Your task to perform on an android device: change the clock display to analog Image 0: 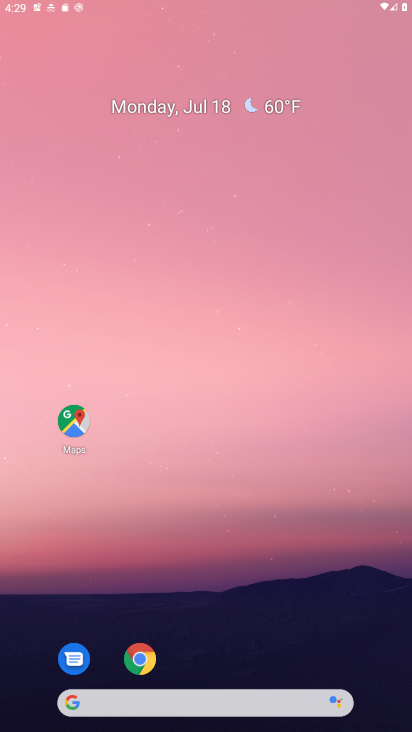
Step 0: click (300, 55)
Your task to perform on an android device: change the clock display to analog Image 1: 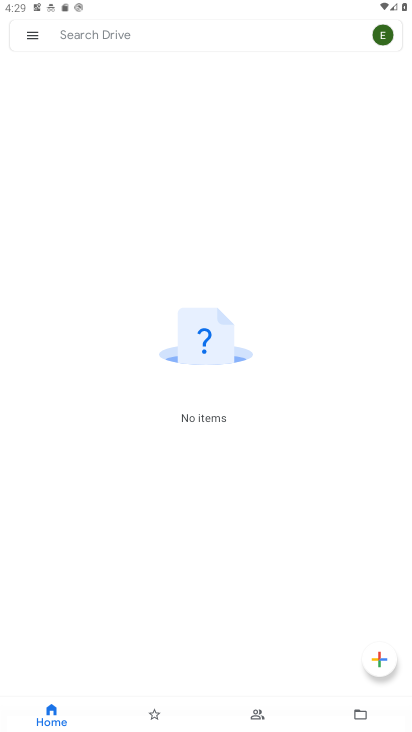
Step 1: press home button
Your task to perform on an android device: change the clock display to analog Image 2: 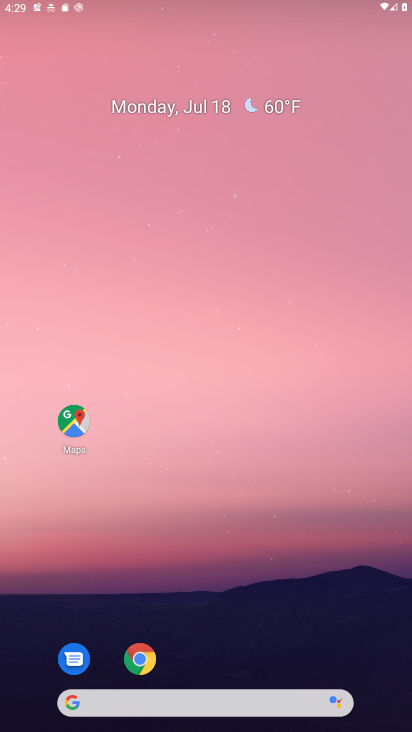
Step 2: drag from (237, 684) to (337, 6)
Your task to perform on an android device: change the clock display to analog Image 3: 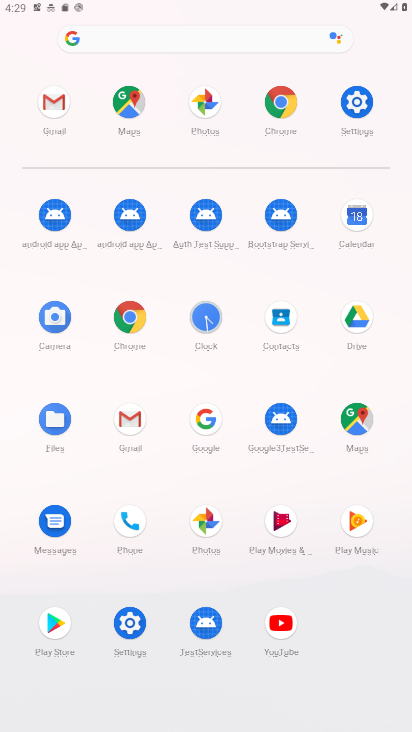
Step 3: click (198, 321)
Your task to perform on an android device: change the clock display to analog Image 4: 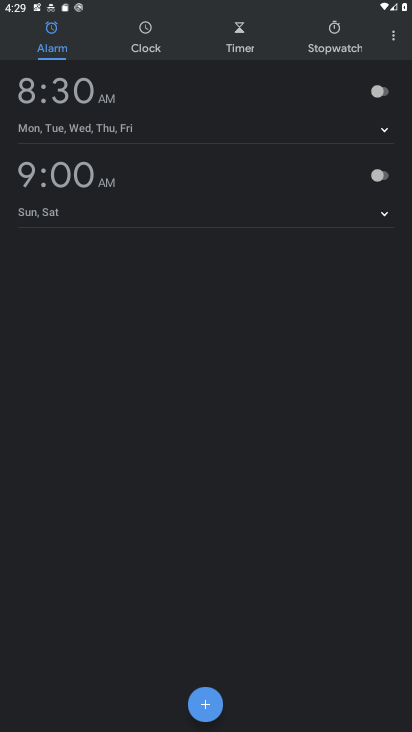
Step 4: click (390, 38)
Your task to perform on an android device: change the clock display to analog Image 5: 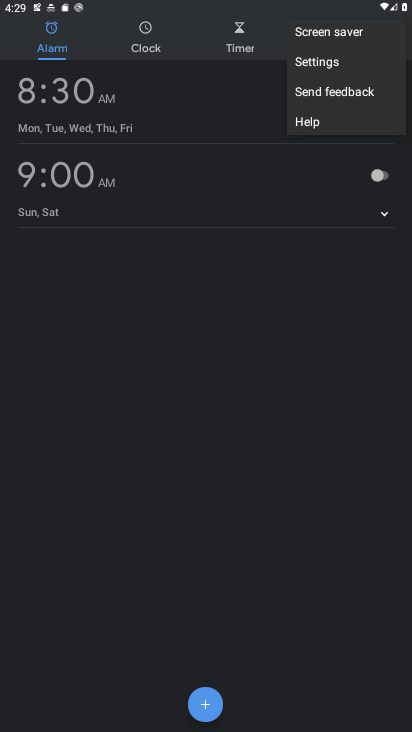
Step 5: click (355, 64)
Your task to perform on an android device: change the clock display to analog Image 6: 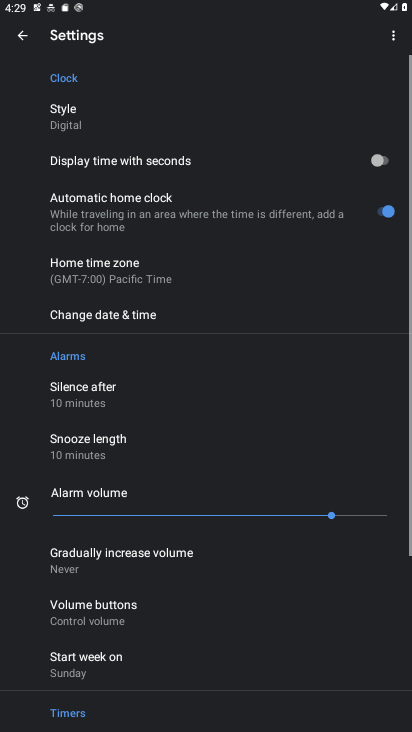
Step 6: click (101, 114)
Your task to perform on an android device: change the clock display to analog Image 7: 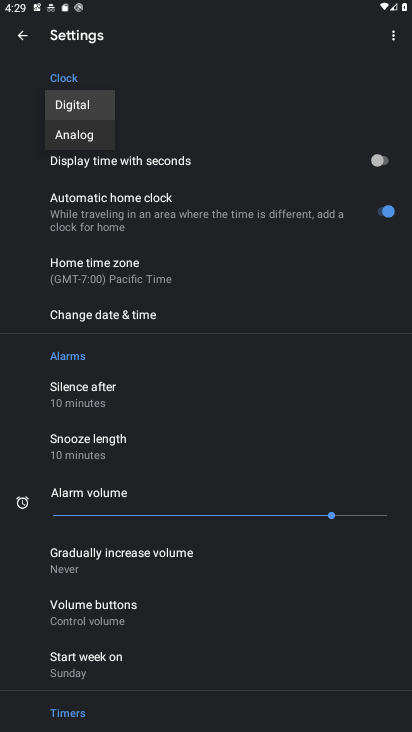
Step 7: click (73, 140)
Your task to perform on an android device: change the clock display to analog Image 8: 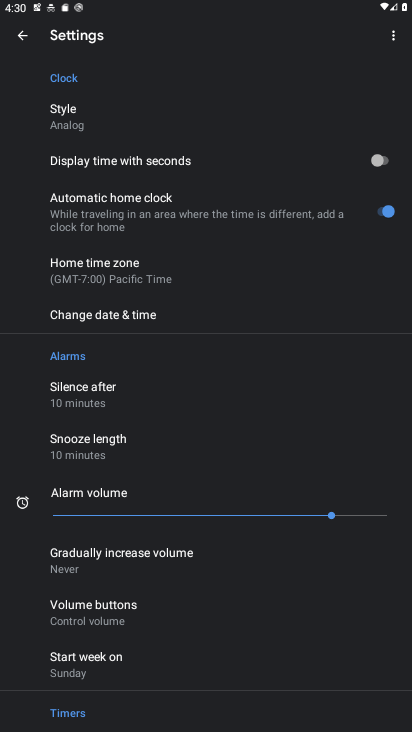
Step 8: task complete